Your task to perform on an android device: Go to Maps Image 0: 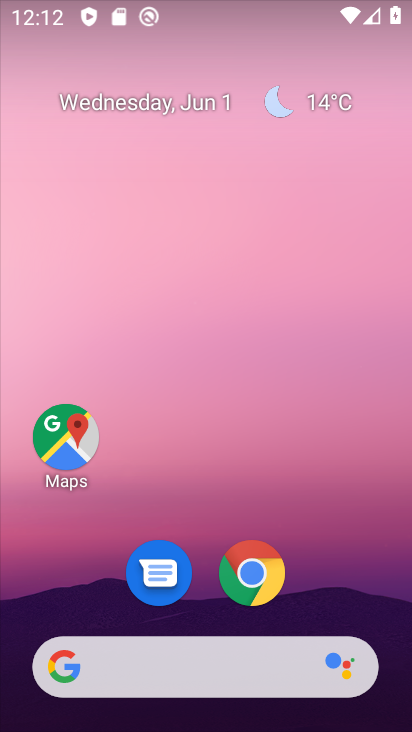
Step 0: click (59, 437)
Your task to perform on an android device: Go to Maps Image 1: 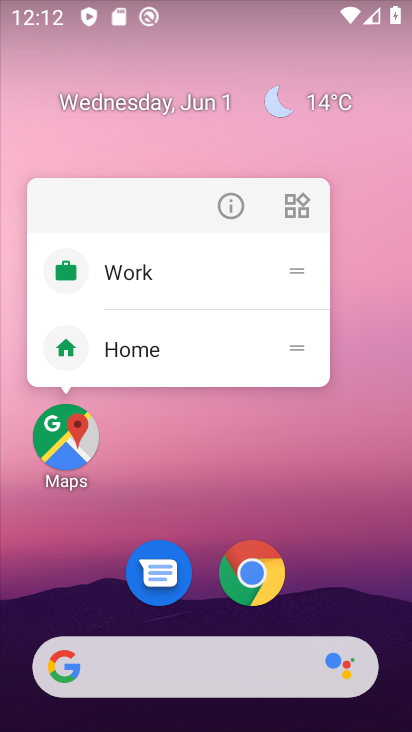
Step 1: click (61, 445)
Your task to perform on an android device: Go to Maps Image 2: 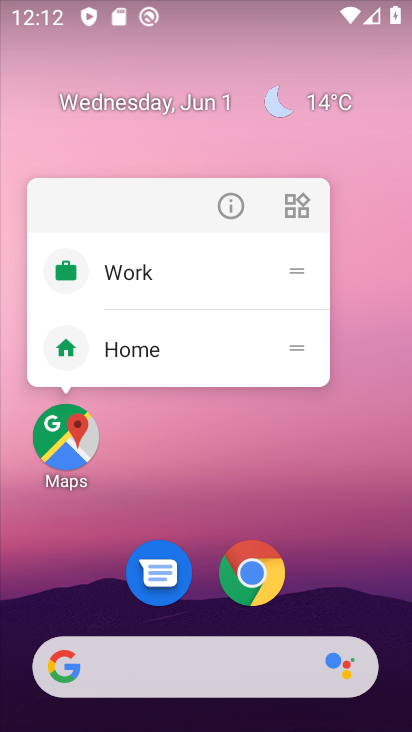
Step 2: click (54, 446)
Your task to perform on an android device: Go to Maps Image 3: 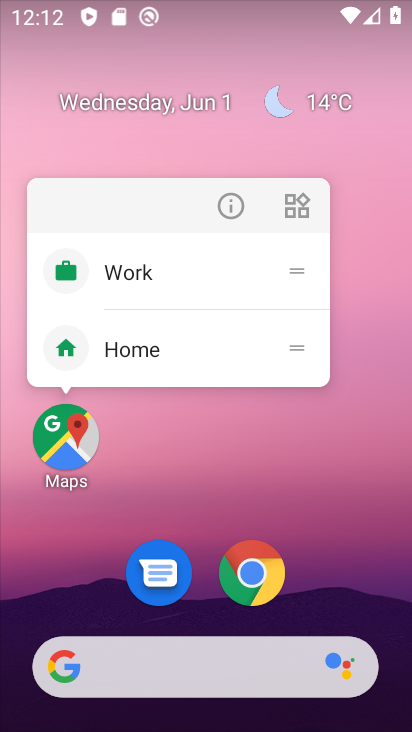
Step 3: click (70, 442)
Your task to perform on an android device: Go to Maps Image 4: 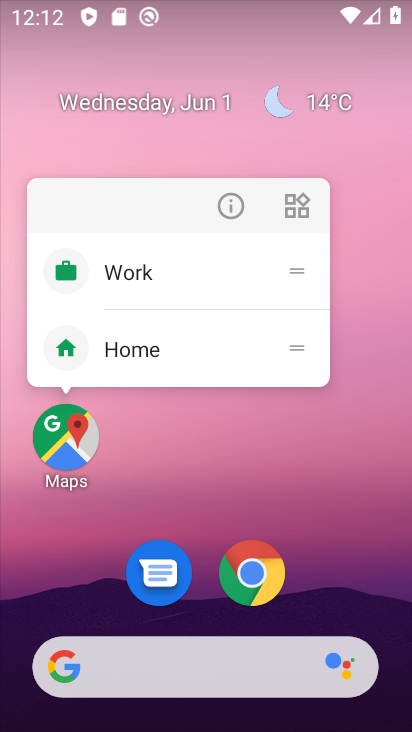
Step 4: click (70, 427)
Your task to perform on an android device: Go to Maps Image 5: 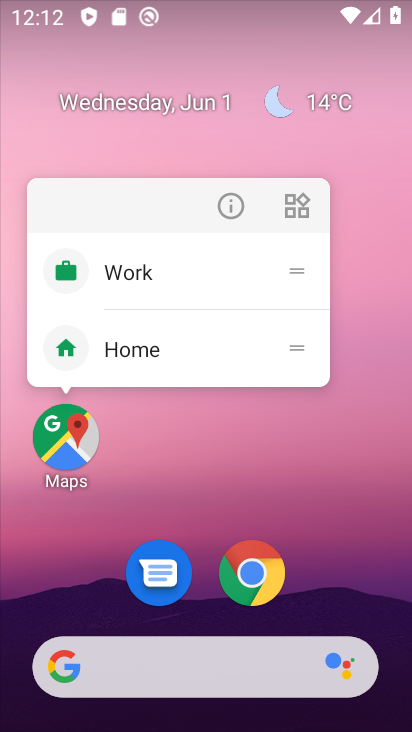
Step 5: click (69, 426)
Your task to perform on an android device: Go to Maps Image 6: 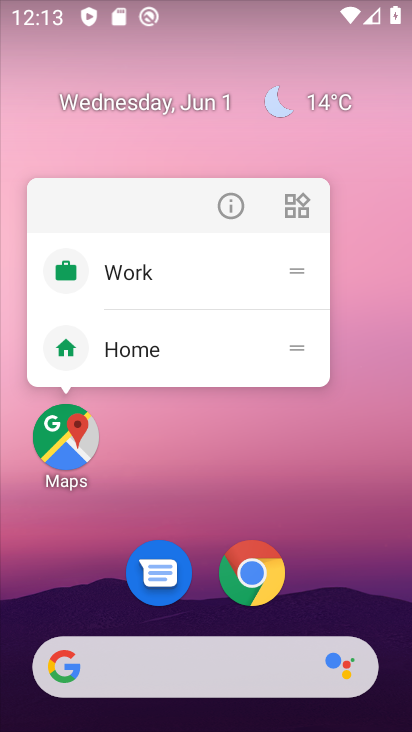
Step 6: click (61, 426)
Your task to perform on an android device: Go to Maps Image 7: 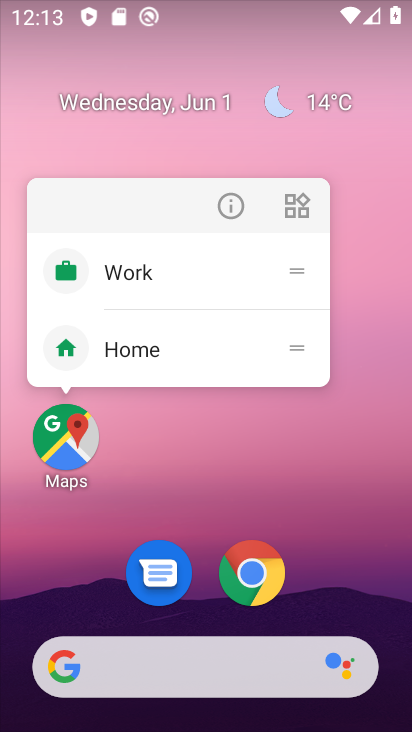
Step 7: click (56, 459)
Your task to perform on an android device: Go to Maps Image 8: 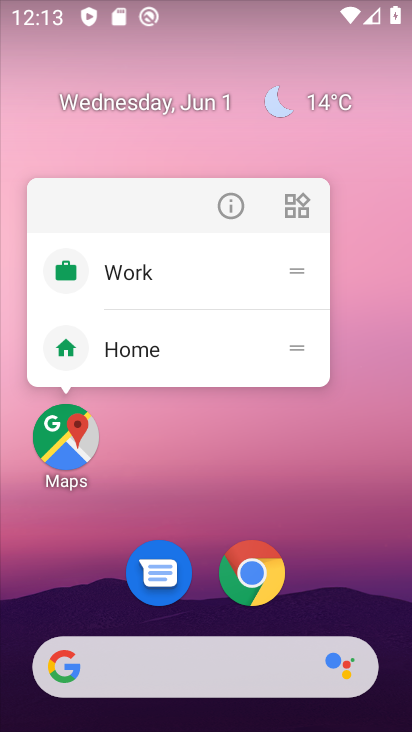
Step 8: click (82, 458)
Your task to perform on an android device: Go to Maps Image 9: 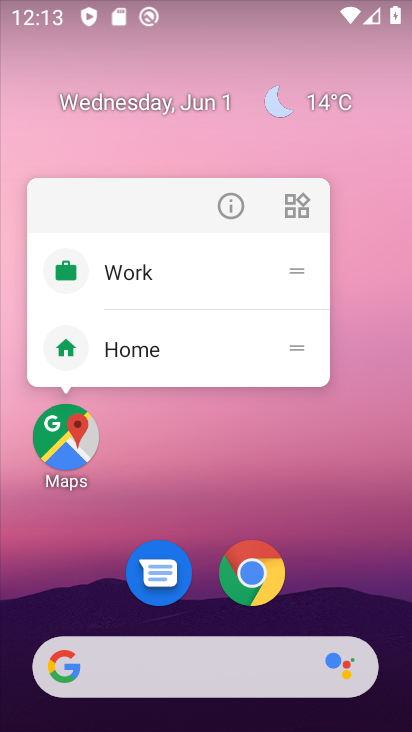
Step 9: click (84, 423)
Your task to perform on an android device: Go to Maps Image 10: 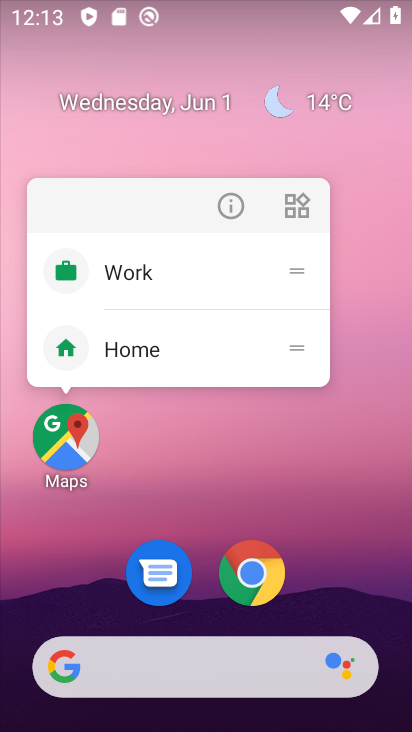
Step 10: click (75, 423)
Your task to perform on an android device: Go to Maps Image 11: 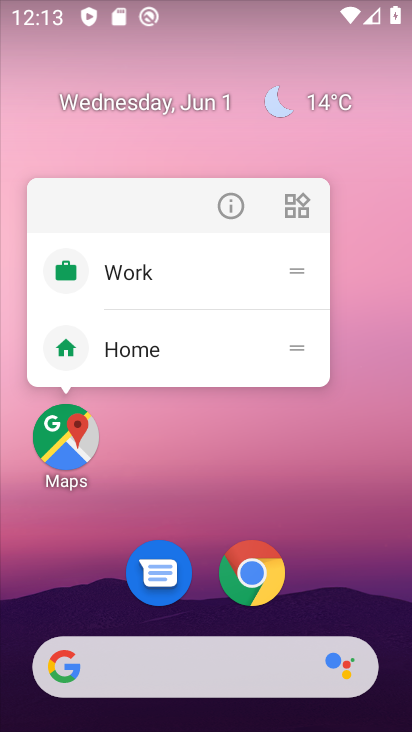
Step 11: click (70, 423)
Your task to perform on an android device: Go to Maps Image 12: 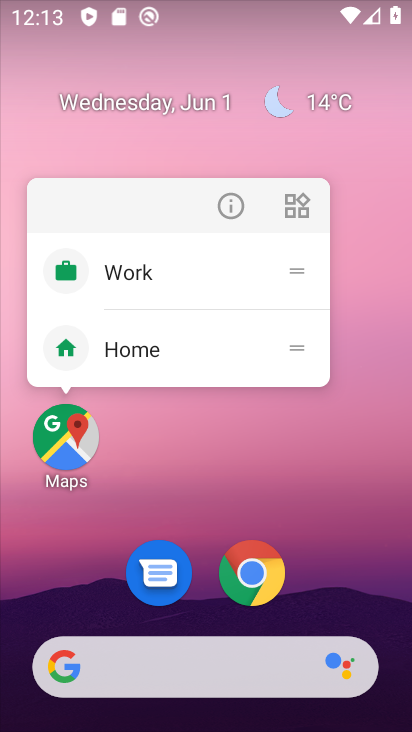
Step 12: click (58, 439)
Your task to perform on an android device: Go to Maps Image 13: 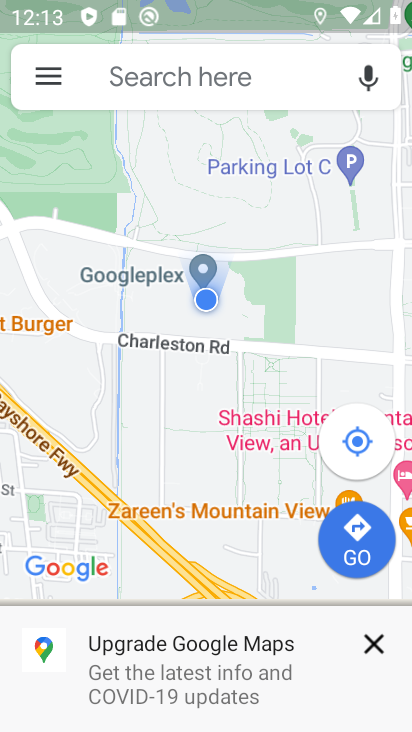
Step 13: task complete